Your task to perform on an android device: Show me productivity apps on the Play Store Image 0: 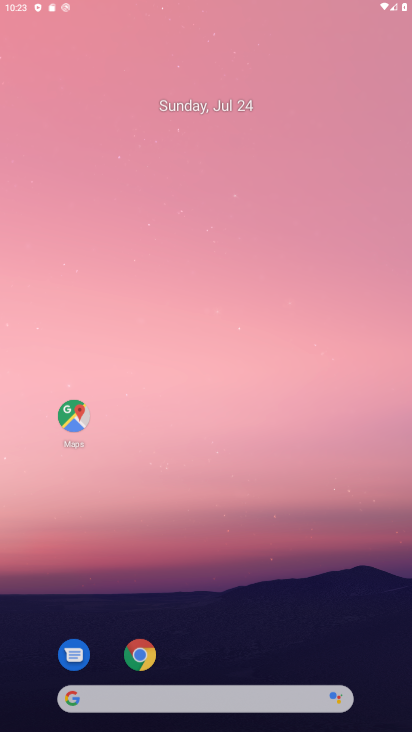
Step 0: drag from (243, 41) to (295, 20)
Your task to perform on an android device: Show me productivity apps on the Play Store Image 1: 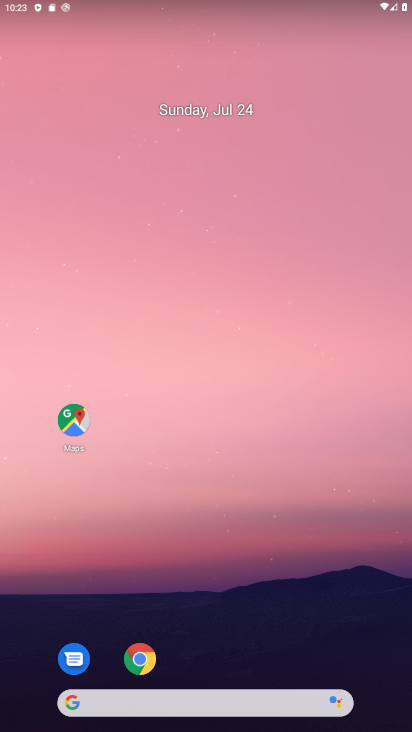
Step 1: drag from (260, 639) to (265, 0)
Your task to perform on an android device: Show me productivity apps on the Play Store Image 2: 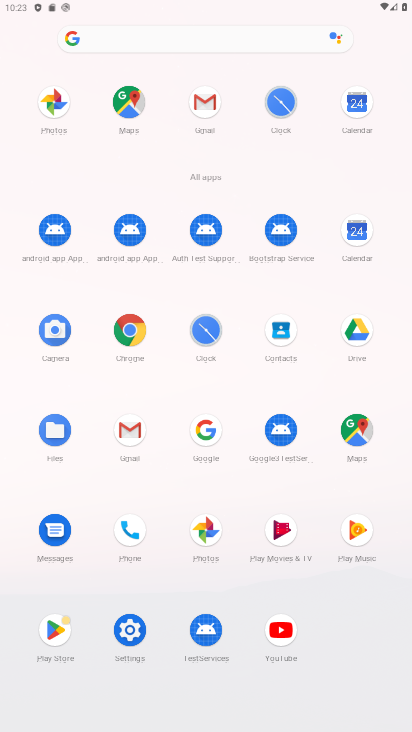
Step 2: click (134, 329)
Your task to perform on an android device: Show me productivity apps on the Play Store Image 3: 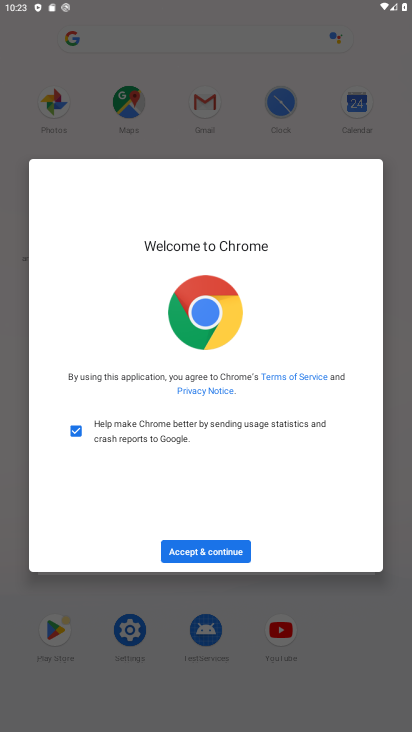
Step 3: click (219, 558)
Your task to perform on an android device: Show me productivity apps on the Play Store Image 4: 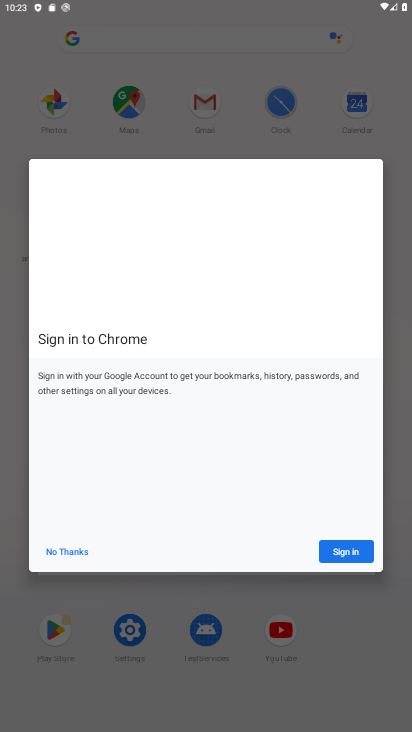
Step 4: click (76, 561)
Your task to perform on an android device: Show me productivity apps on the Play Store Image 5: 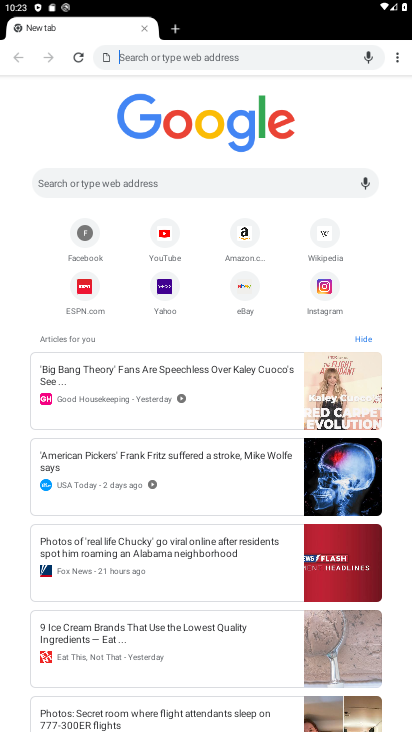
Step 5: click (189, 172)
Your task to perform on an android device: Show me productivity apps on the Play Store Image 6: 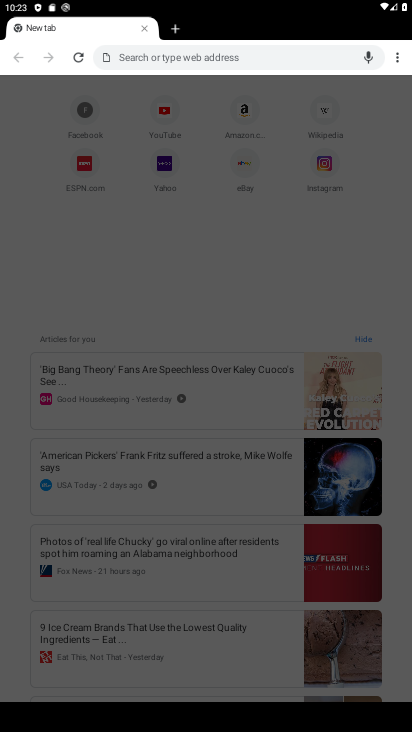
Step 6: type "productivity apps"
Your task to perform on an android device: Show me productivity apps on the Play Store Image 7: 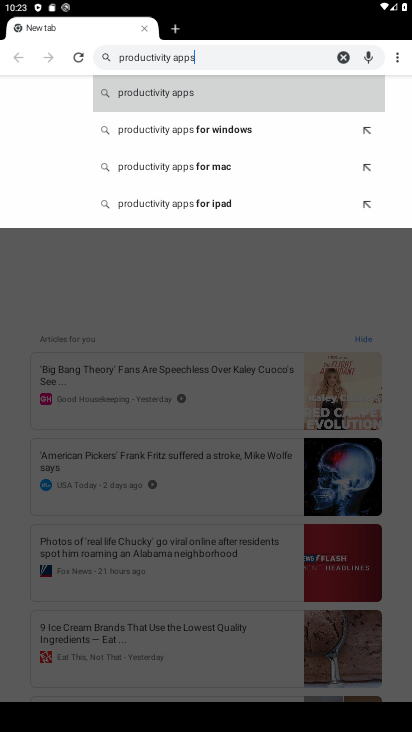
Step 7: click (186, 89)
Your task to perform on an android device: Show me productivity apps on the Play Store Image 8: 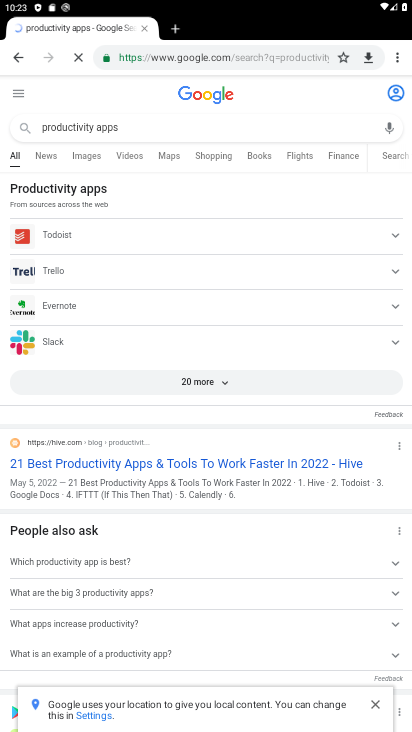
Step 8: task complete